Your task to perform on an android device: Turn off the flashlight Image 0: 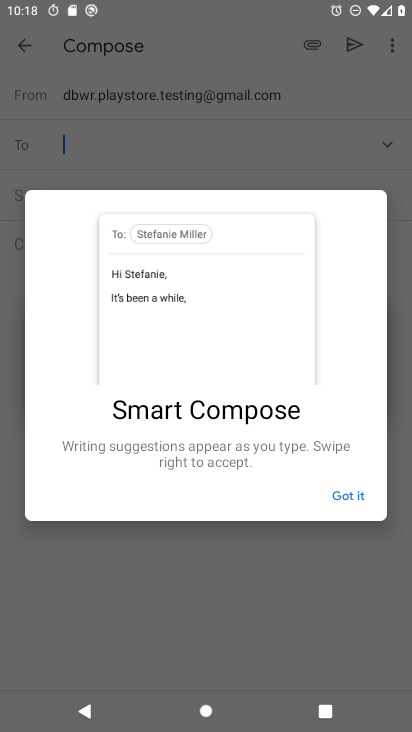
Step 0: press home button
Your task to perform on an android device: Turn off the flashlight Image 1: 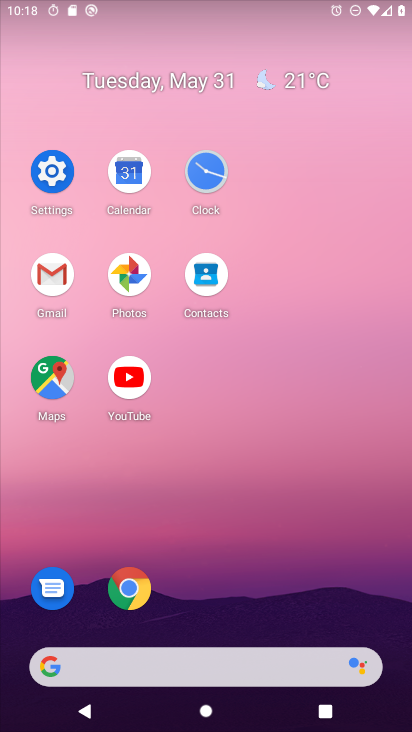
Step 1: click (137, 171)
Your task to perform on an android device: Turn off the flashlight Image 2: 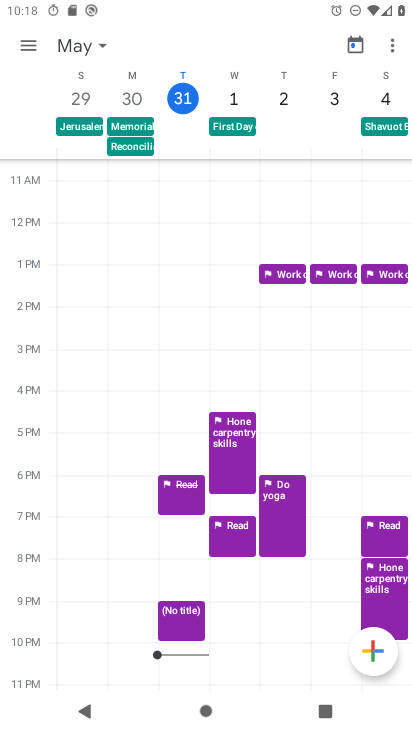
Step 2: task complete